Your task to perform on an android device: Open Maps and search for coffee Image 0: 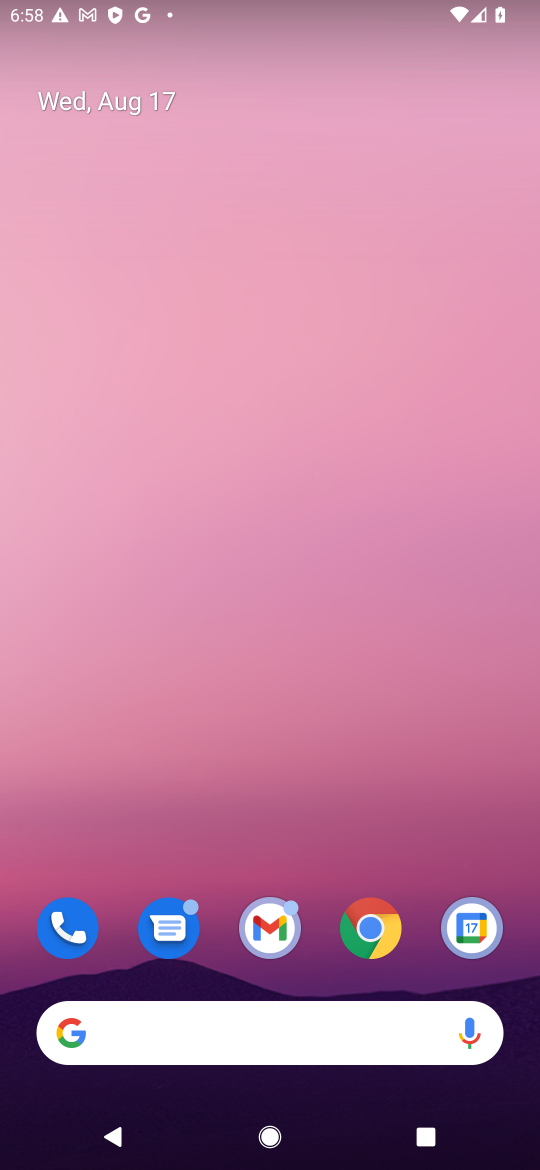
Step 0: drag from (308, 1022) to (295, 61)
Your task to perform on an android device: Open Maps and search for coffee Image 1: 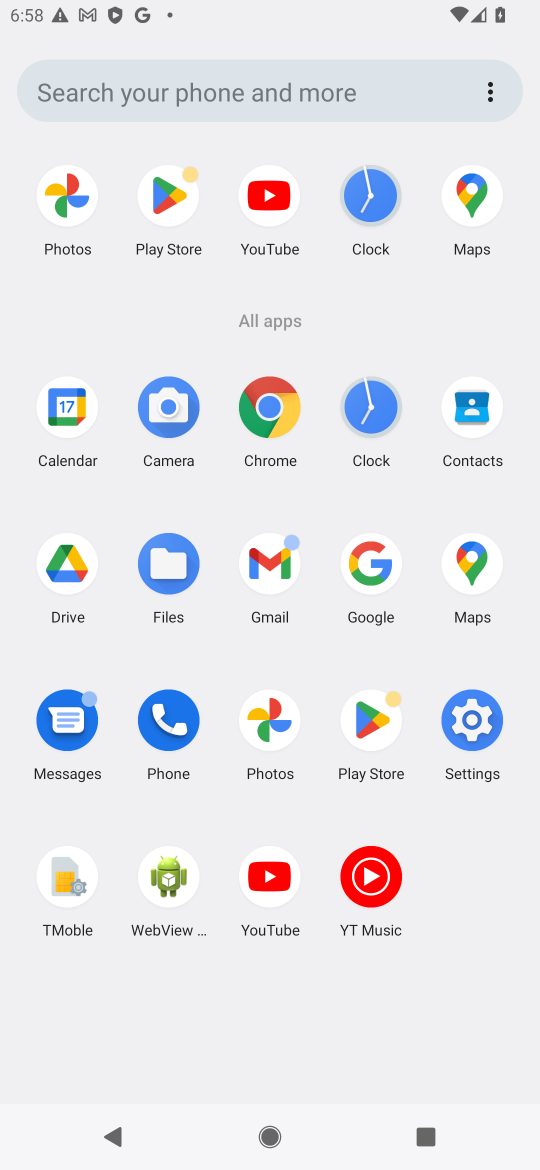
Step 1: click (453, 570)
Your task to perform on an android device: Open Maps and search for coffee Image 2: 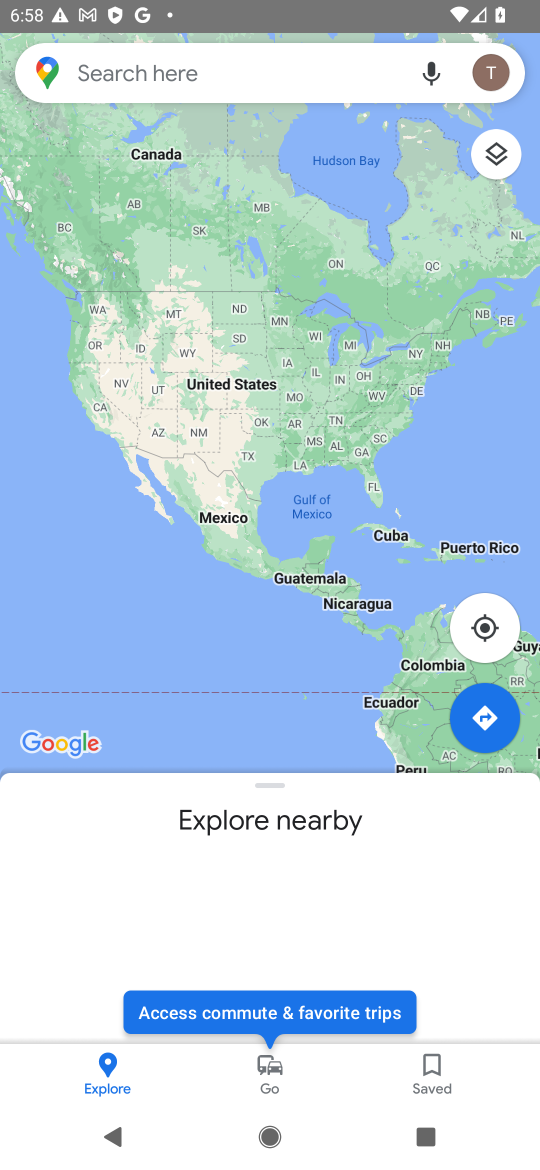
Step 2: click (249, 89)
Your task to perform on an android device: Open Maps and search for coffee Image 3: 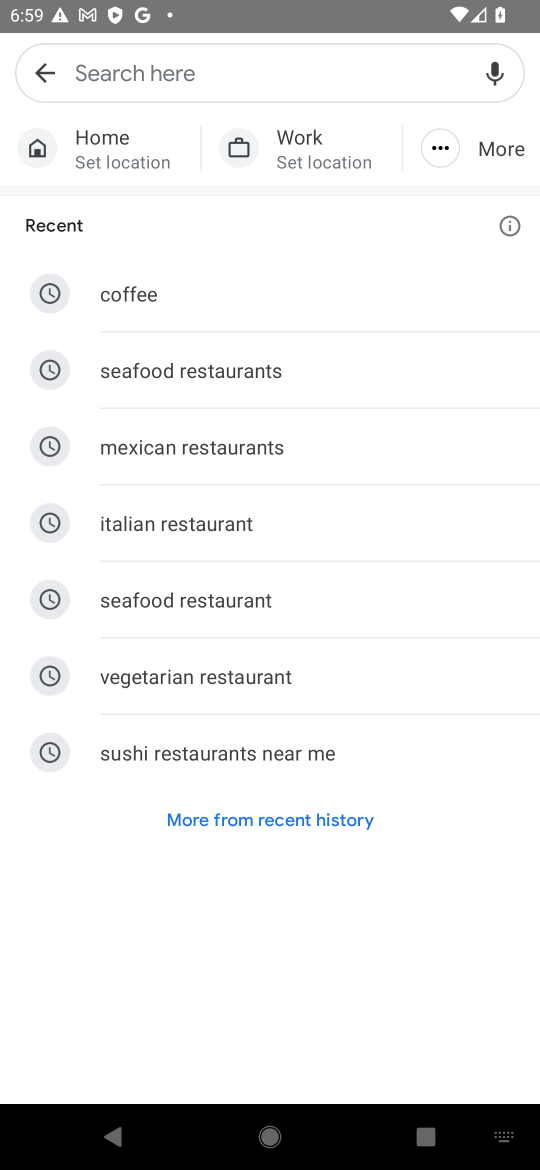
Step 3: click (156, 301)
Your task to perform on an android device: Open Maps and search for coffee Image 4: 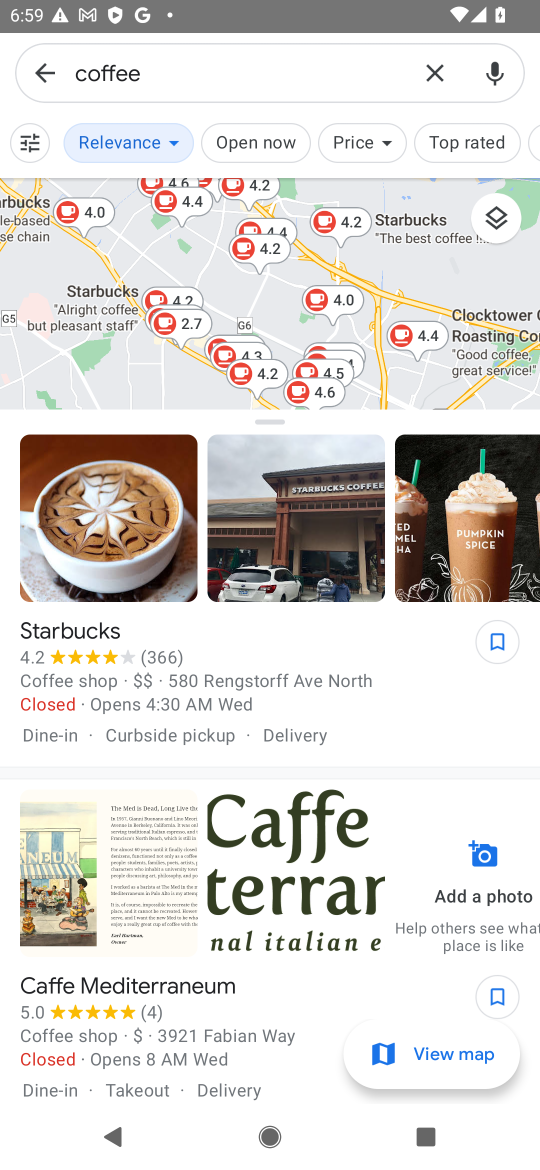
Step 4: task complete